Your task to perform on an android device: toggle priority inbox in the gmail app Image 0: 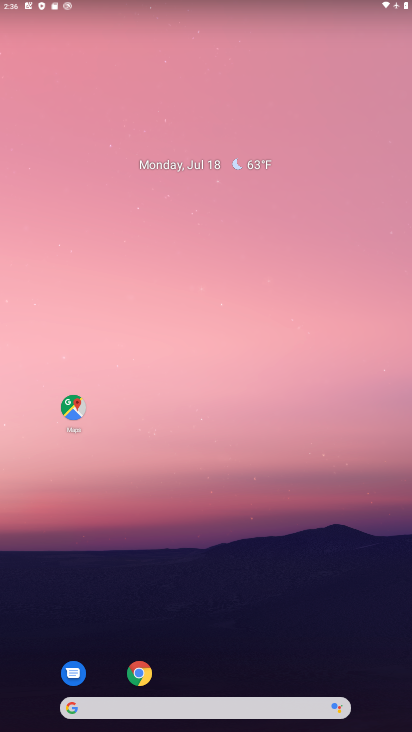
Step 0: drag from (222, 627) to (258, 15)
Your task to perform on an android device: toggle priority inbox in the gmail app Image 1: 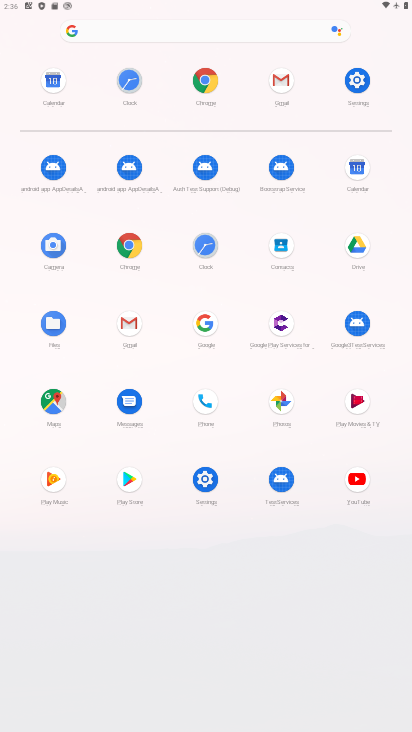
Step 1: click (283, 88)
Your task to perform on an android device: toggle priority inbox in the gmail app Image 2: 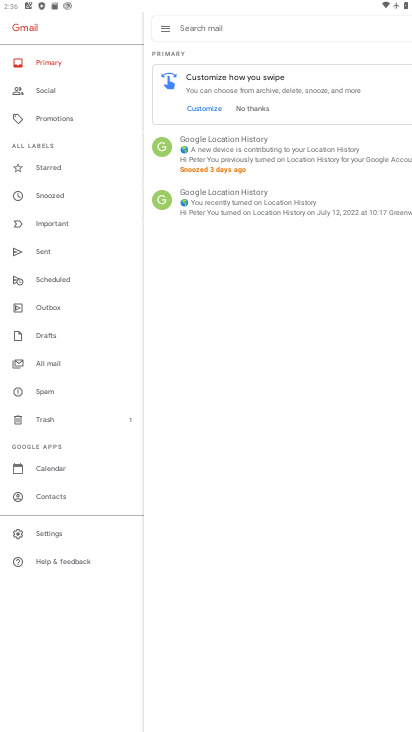
Step 2: click (65, 535)
Your task to perform on an android device: toggle priority inbox in the gmail app Image 3: 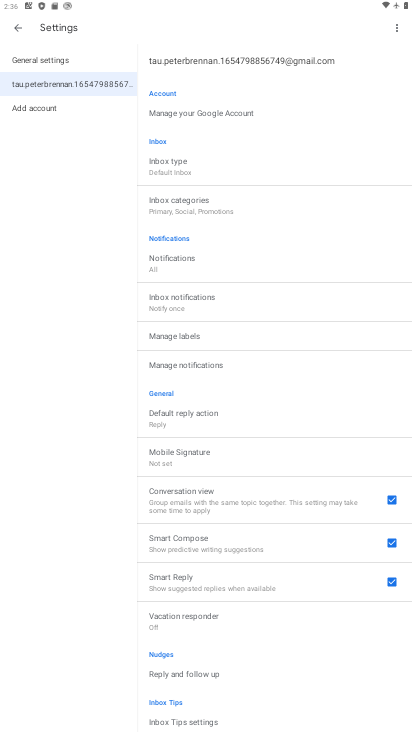
Step 3: click (200, 166)
Your task to perform on an android device: toggle priority inbox in the gmail app Image 4: 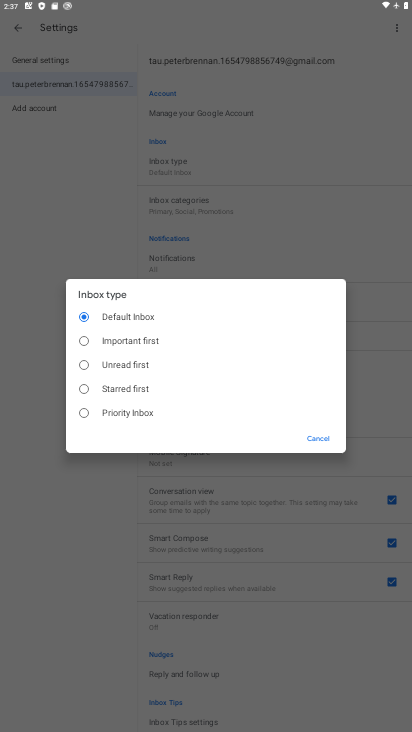
Step 4: click (98, 423)
Your task to perform on an android device: toggle priority inbox in the gmail app Image 5: 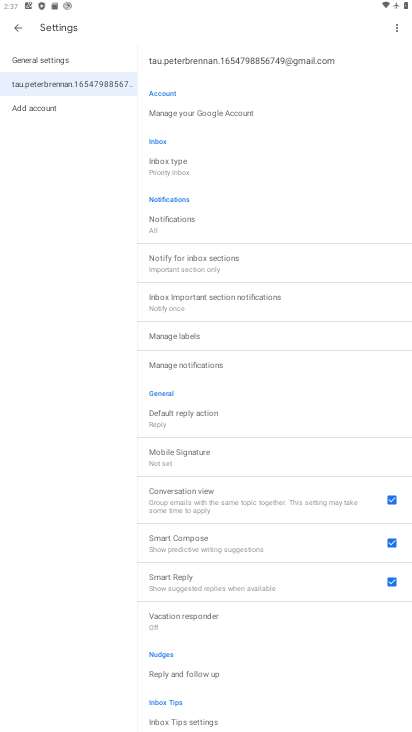
Step 5: task complete